Your task to perform on an android device: turn off data saver in the chrome app Image 0: 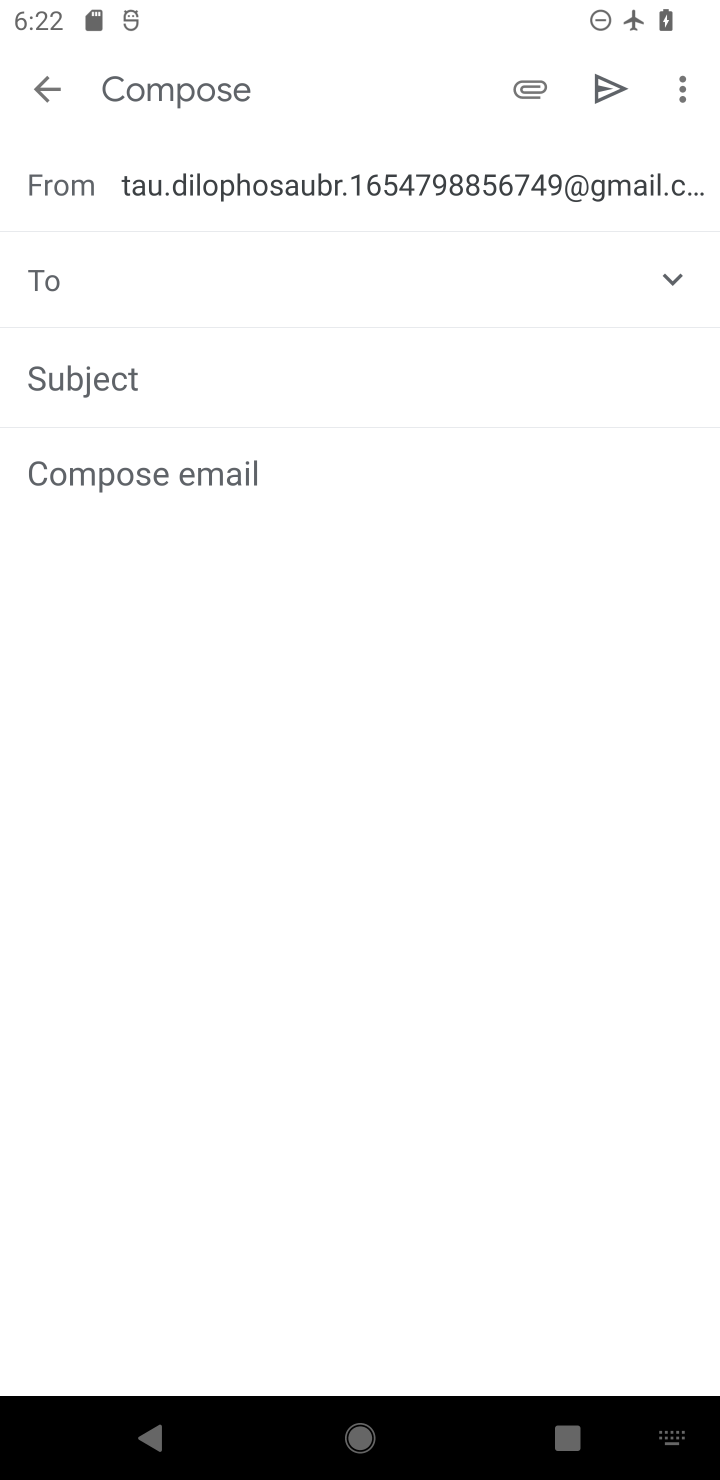
Step 0: press back button
Your task to perform on an android device: turn off data saver in the chrome app Image 1: 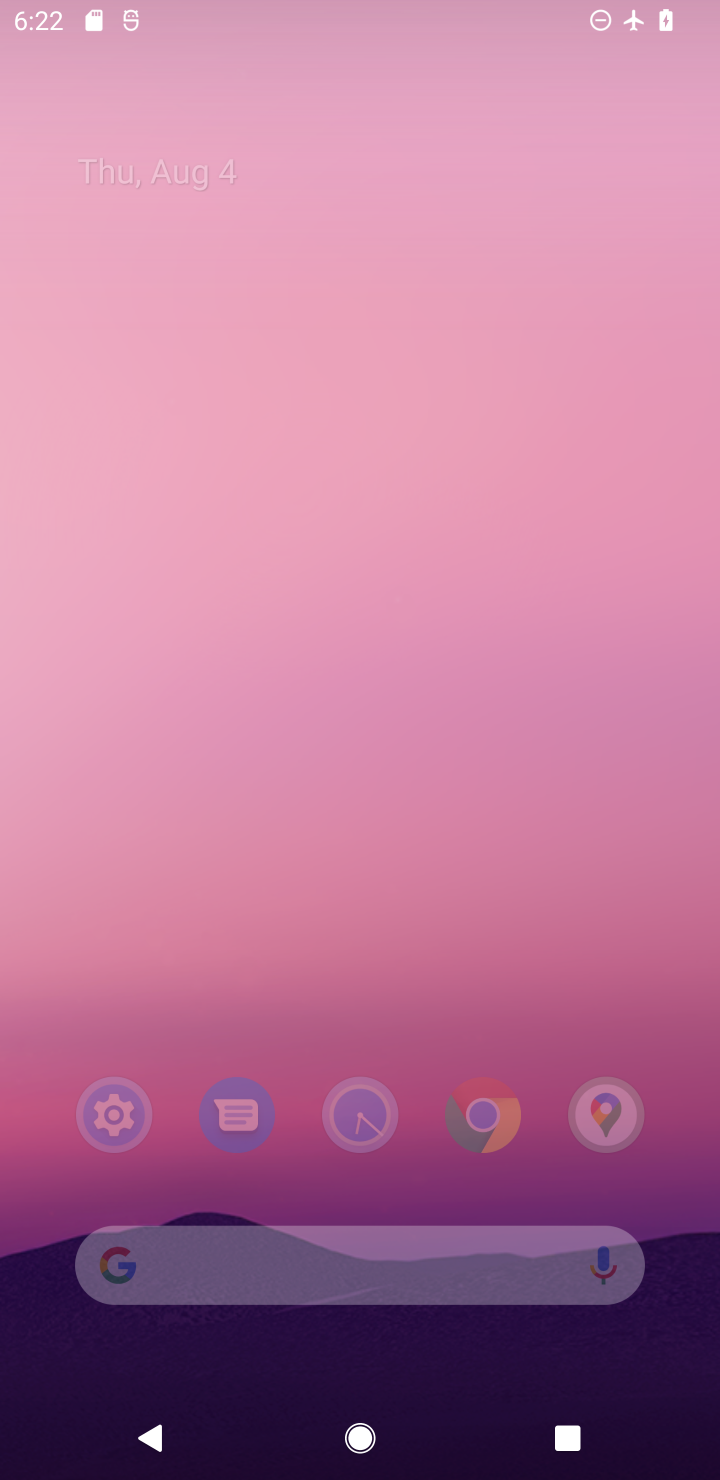
Step 1: press home button
Your task to perform on an android device: turn off data saver in the chrome app Image 2: 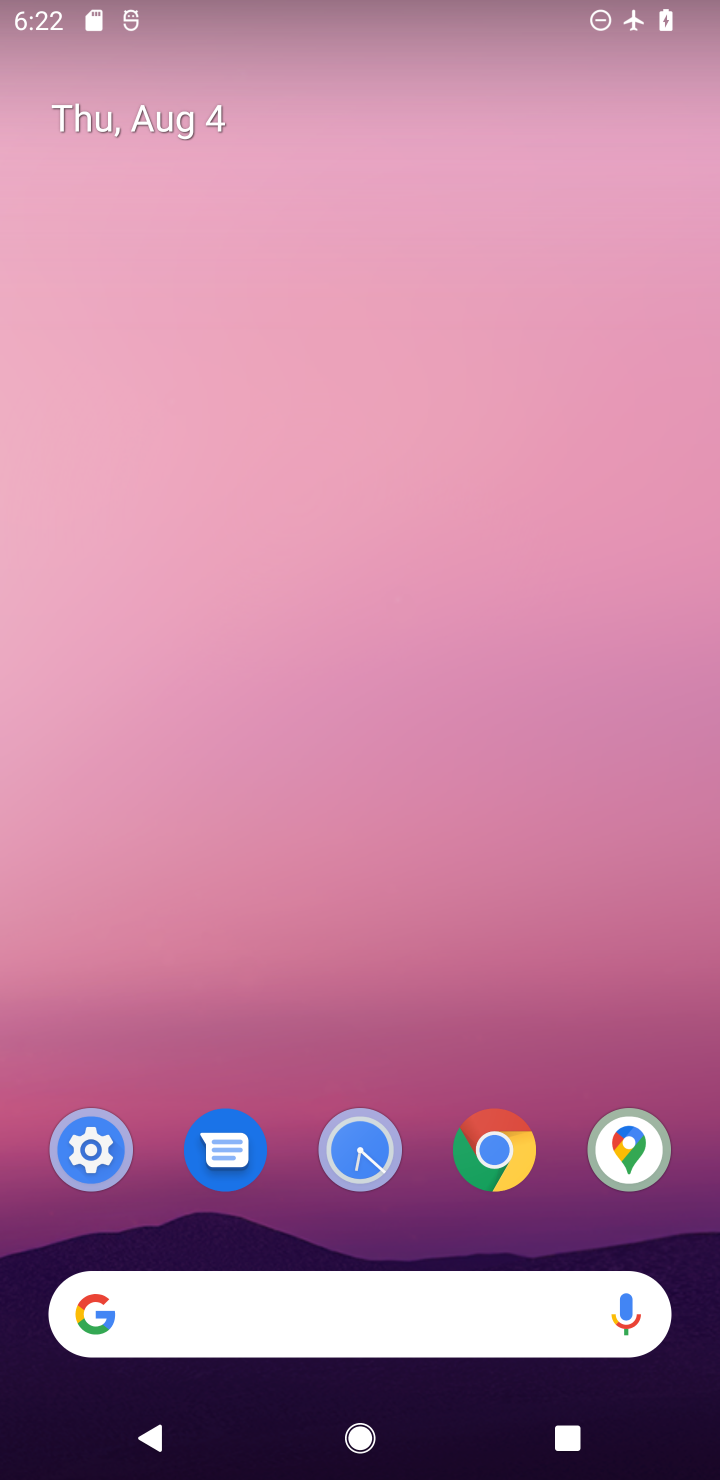
Step 2: drag from (481, 1273) to (479, 102)
Your task to perform on an android device: turn off data saver in the chrome app Image 3: 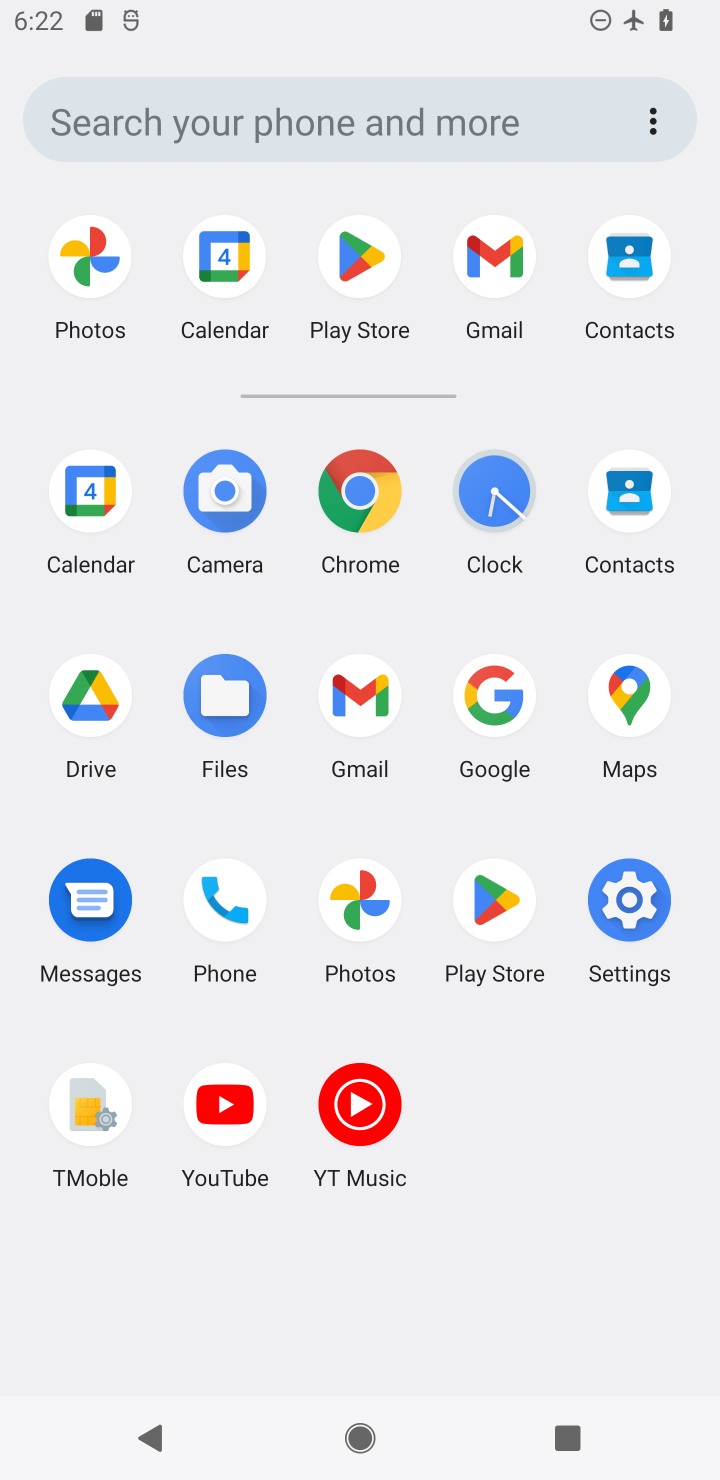
Step 3: click (385, 493)
Your task to perform on an android device: turn off data saver in the chrome app Image 4: 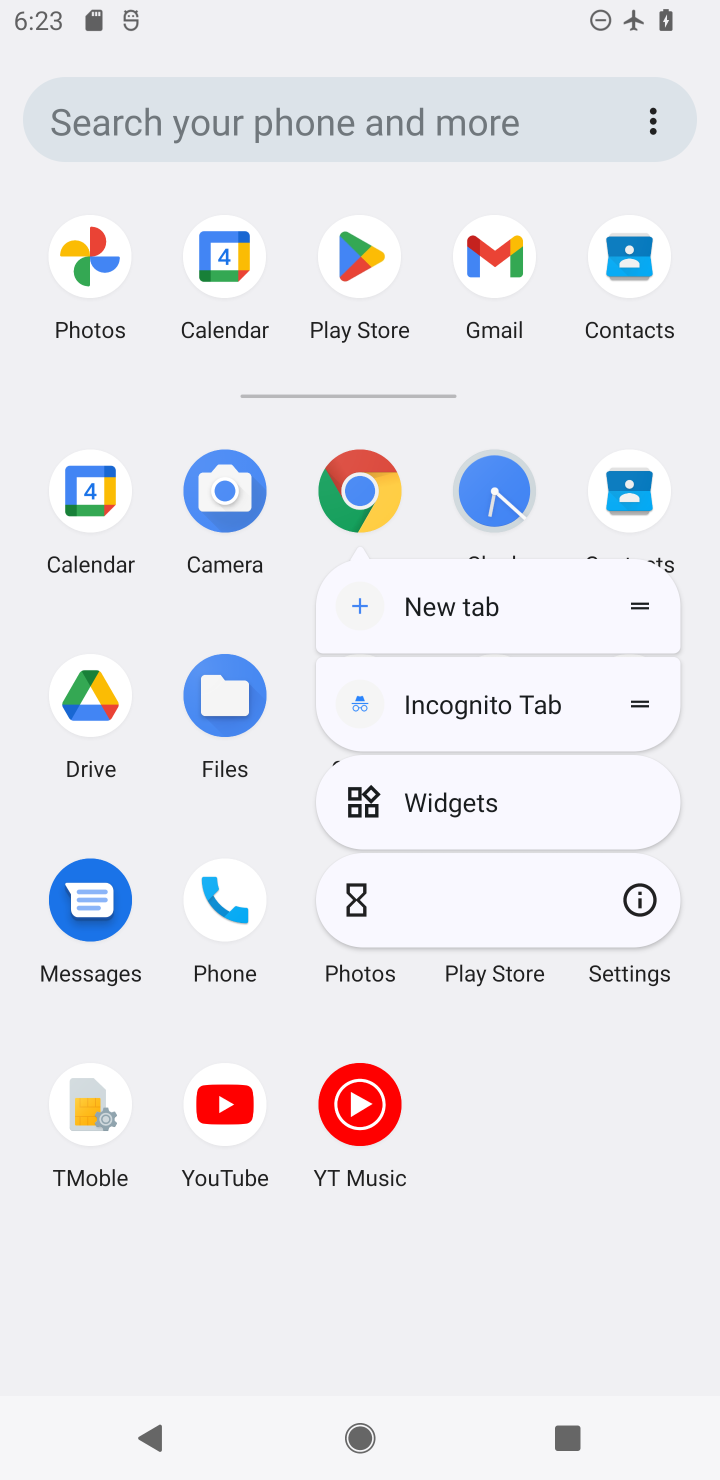
Step 4: click (333, 477)
Your task to perform on an android device: turn off data saver in the chrome app Image 5: 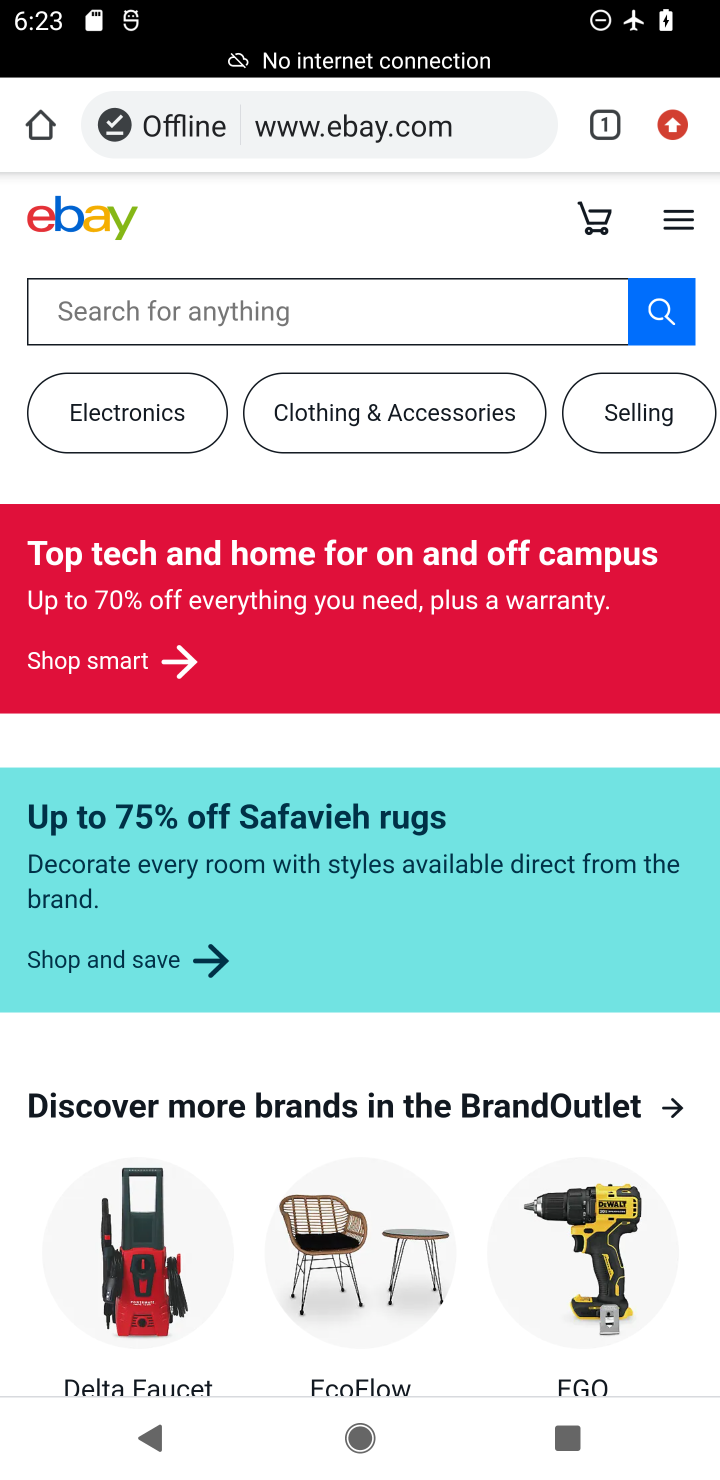
Step 5: click (662, 121)
Your task to perform on an android device: turn off data saver in the chrome app Image 6: 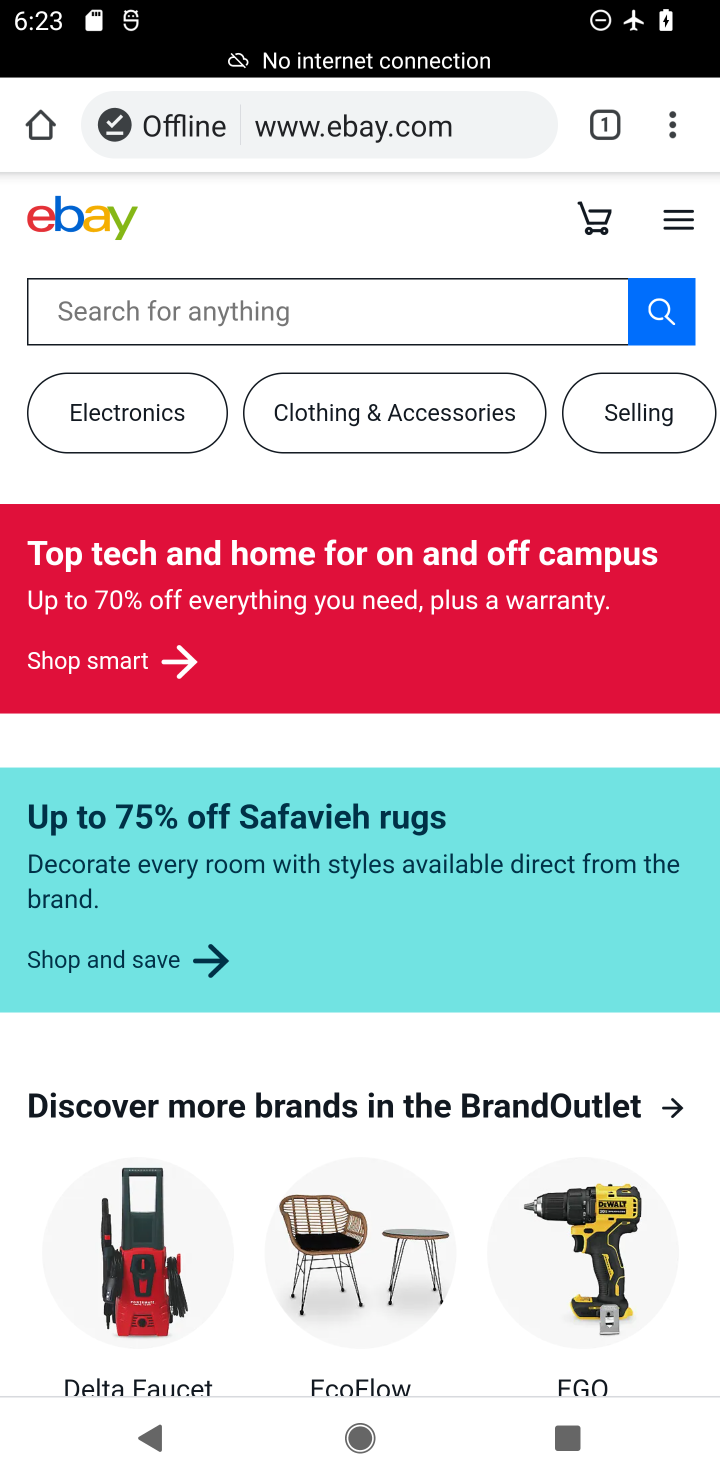
Step 6: click (672, 121)
Your task to perform on an android device: turn off data saver in the chrome app Image 7: 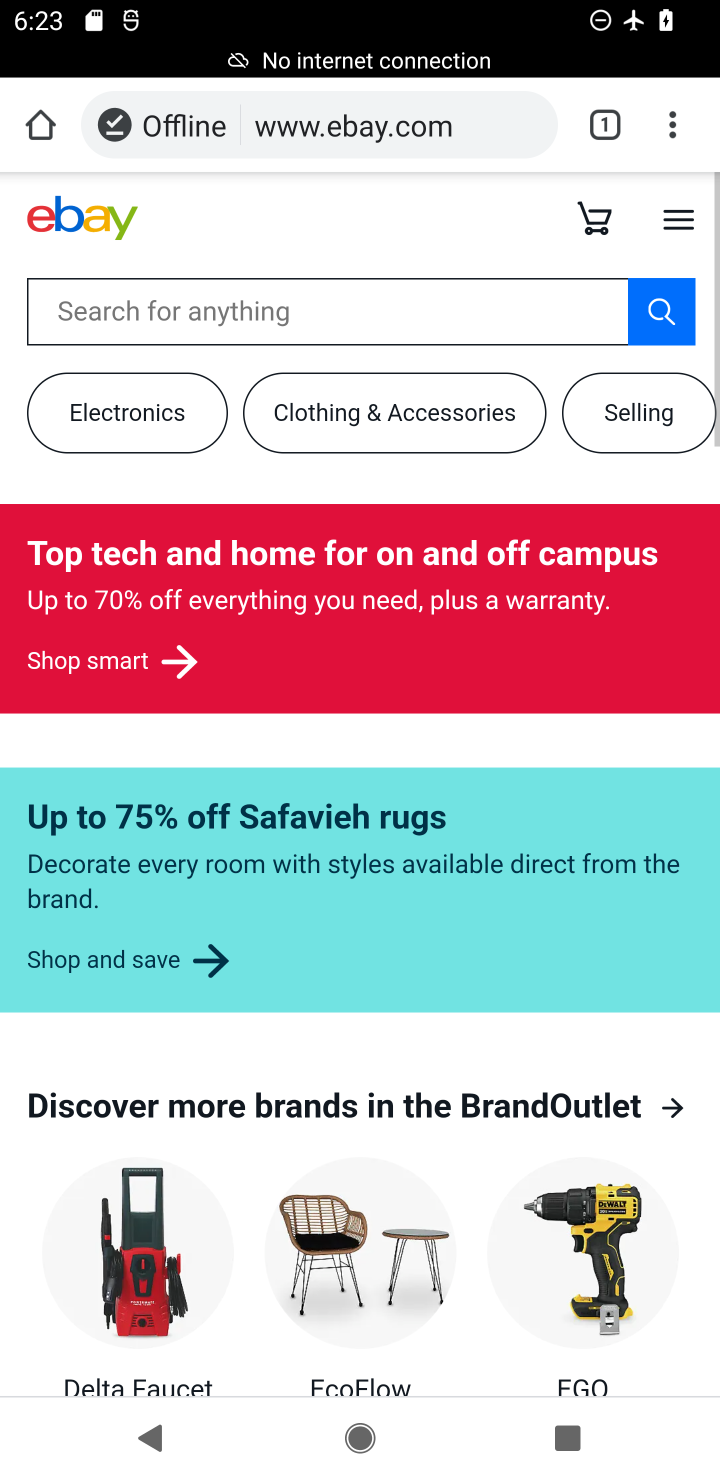
Step 7: drag from (671, 128) to (405, 1124)
Your task to perform on an android device: turn off data saver in the chrome app Image 8: 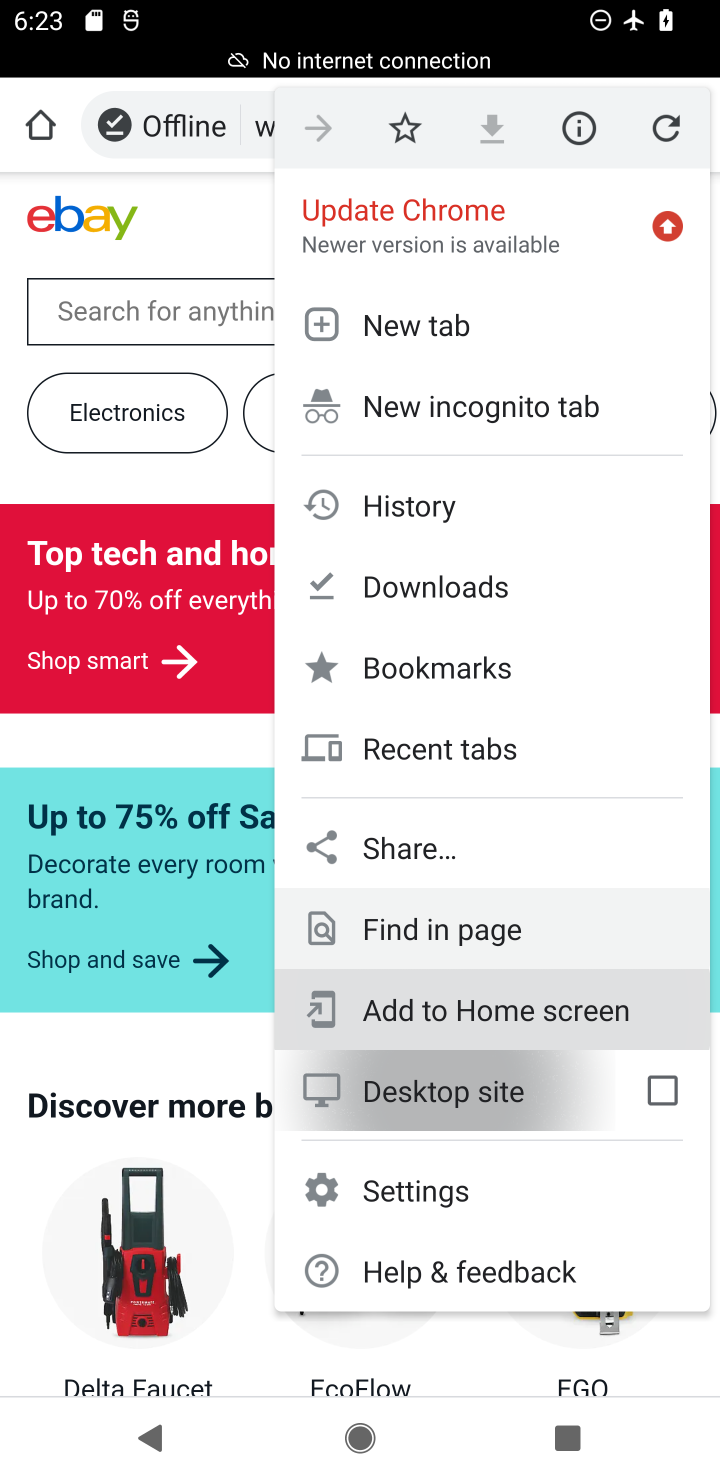
Step 8: click (384, 1191)
Your task to perform on an android device: turn off data saver in the chrome app Image 9: 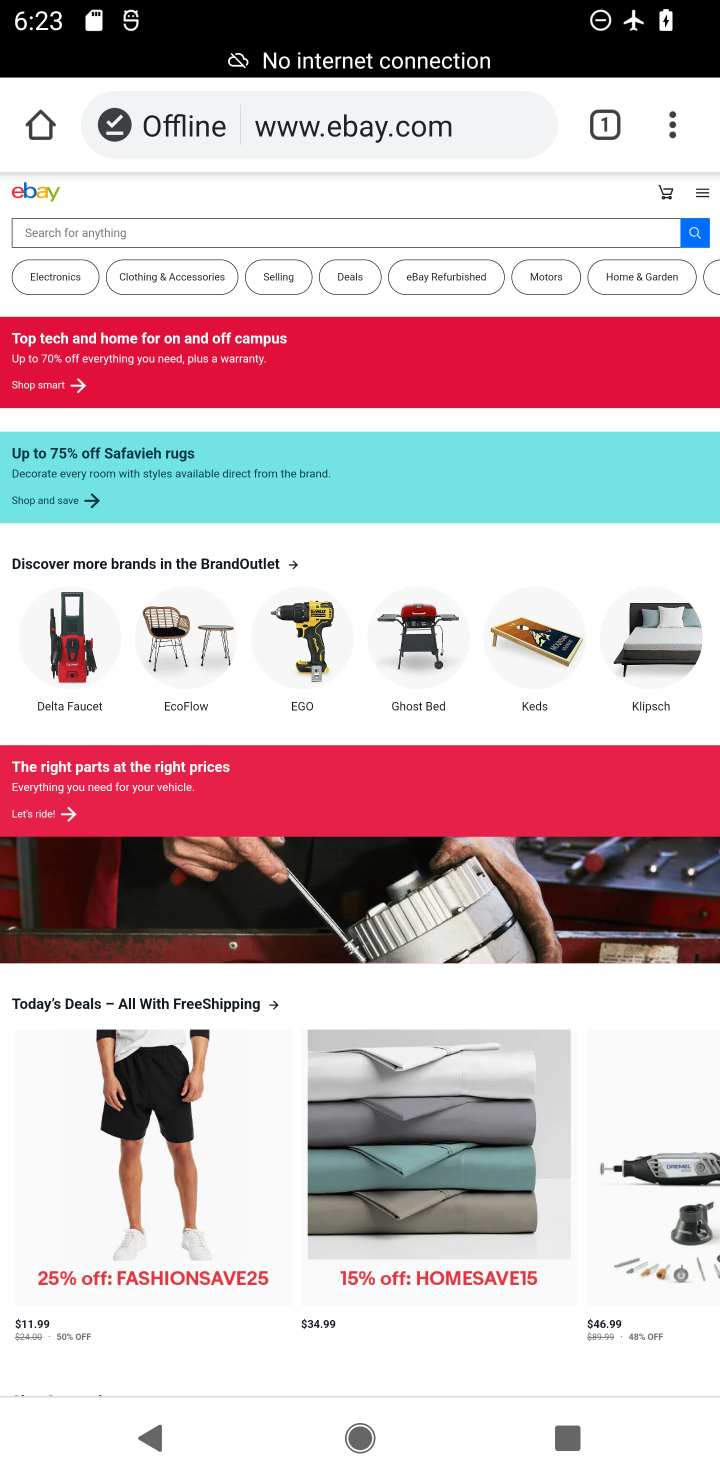
Step 9: click (664, 129)
Your task to perform on an android device: turn off data saver in the chrome app Image 10: 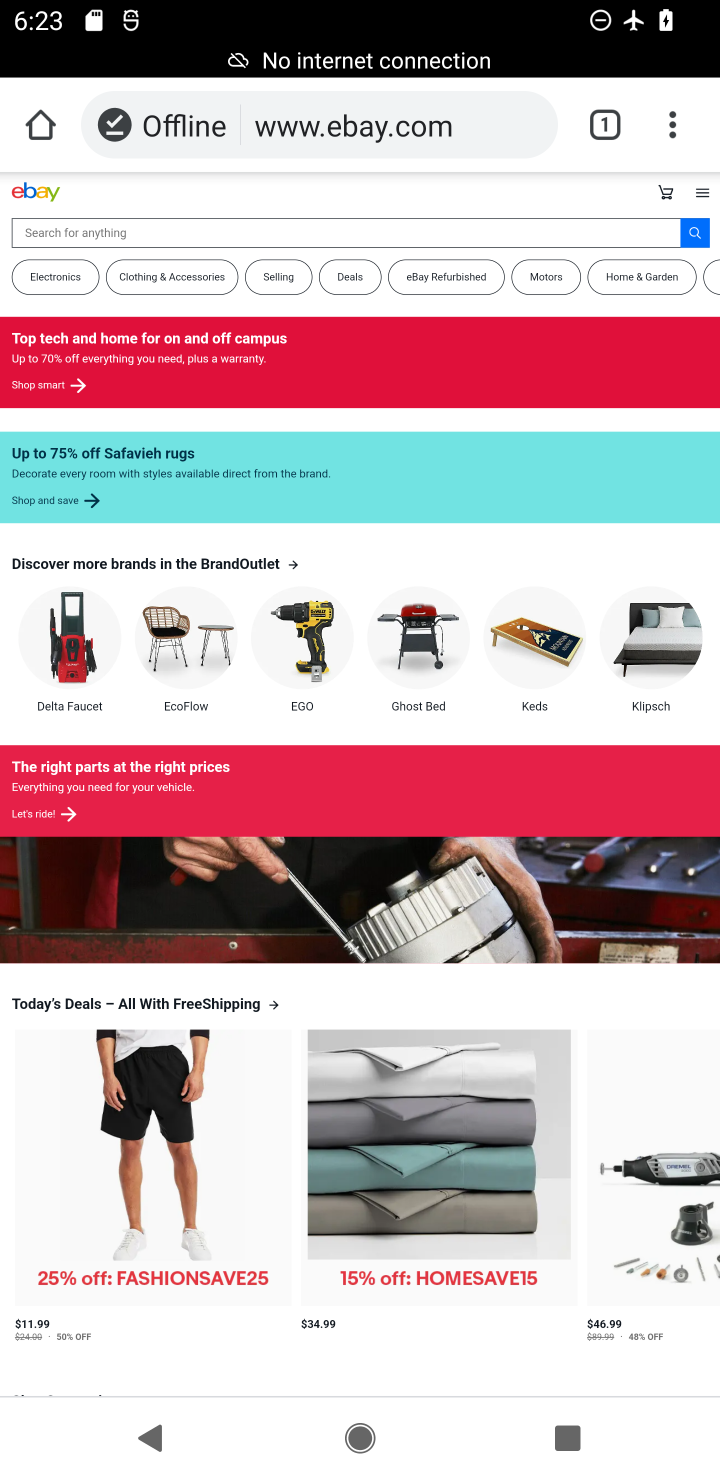
Step 10: drag from (663, 123) to (479, 1198)
Your task to perform on an android device: turn off data saver in the chrome app Image 11: 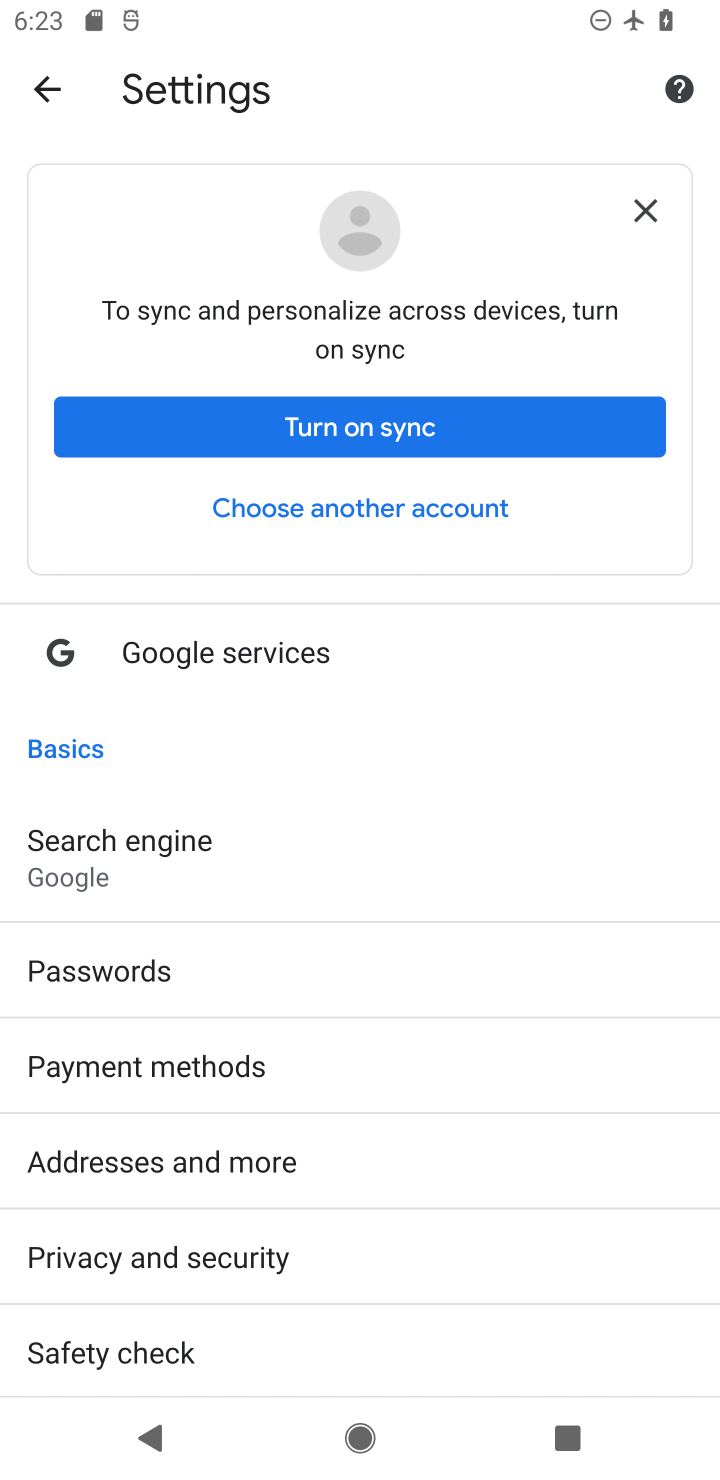
Step 11: drag from (326, 1152) to (364, 101)
Your task to perform on an android device: turn off data saver in the chrome app Image 12: 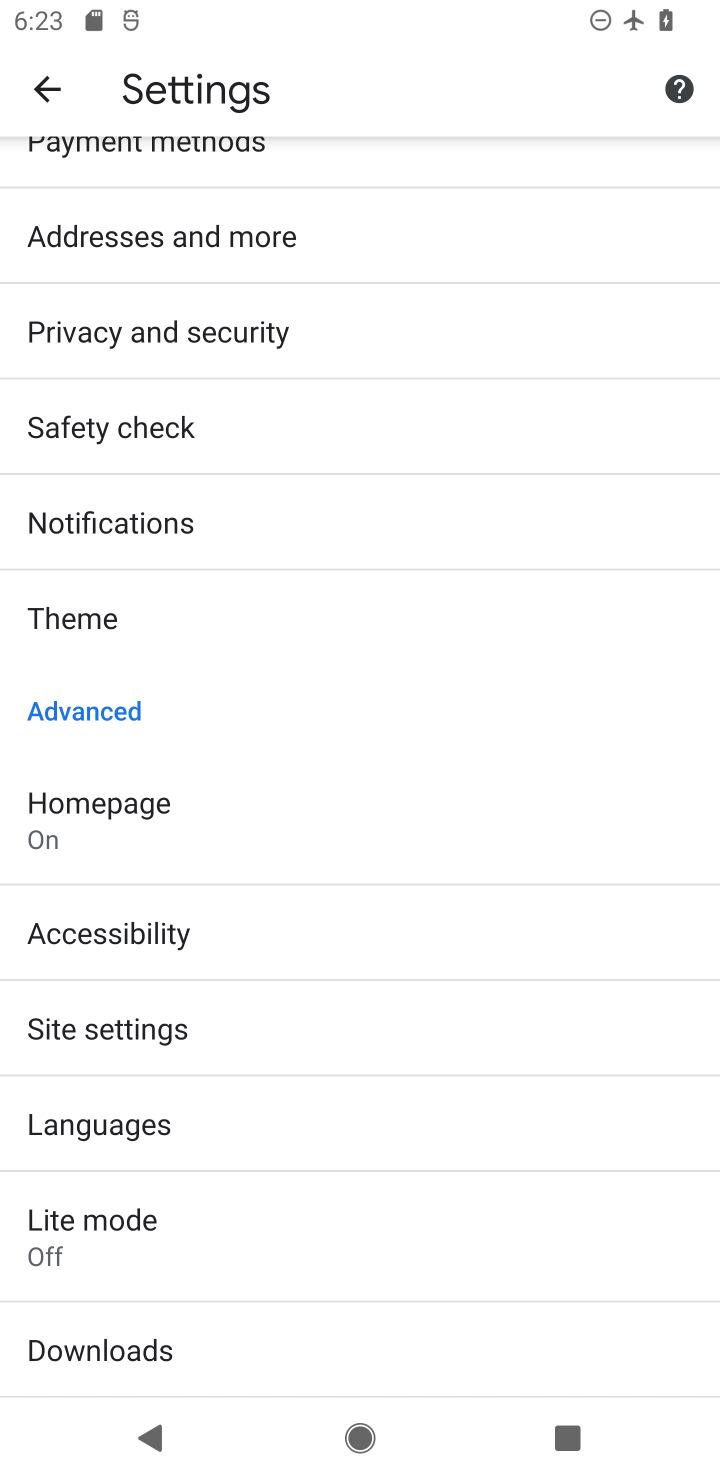
Step 12: click (120, 1204)
Your task to perform on an android device: turn off data saver in the chrome app Image 13: 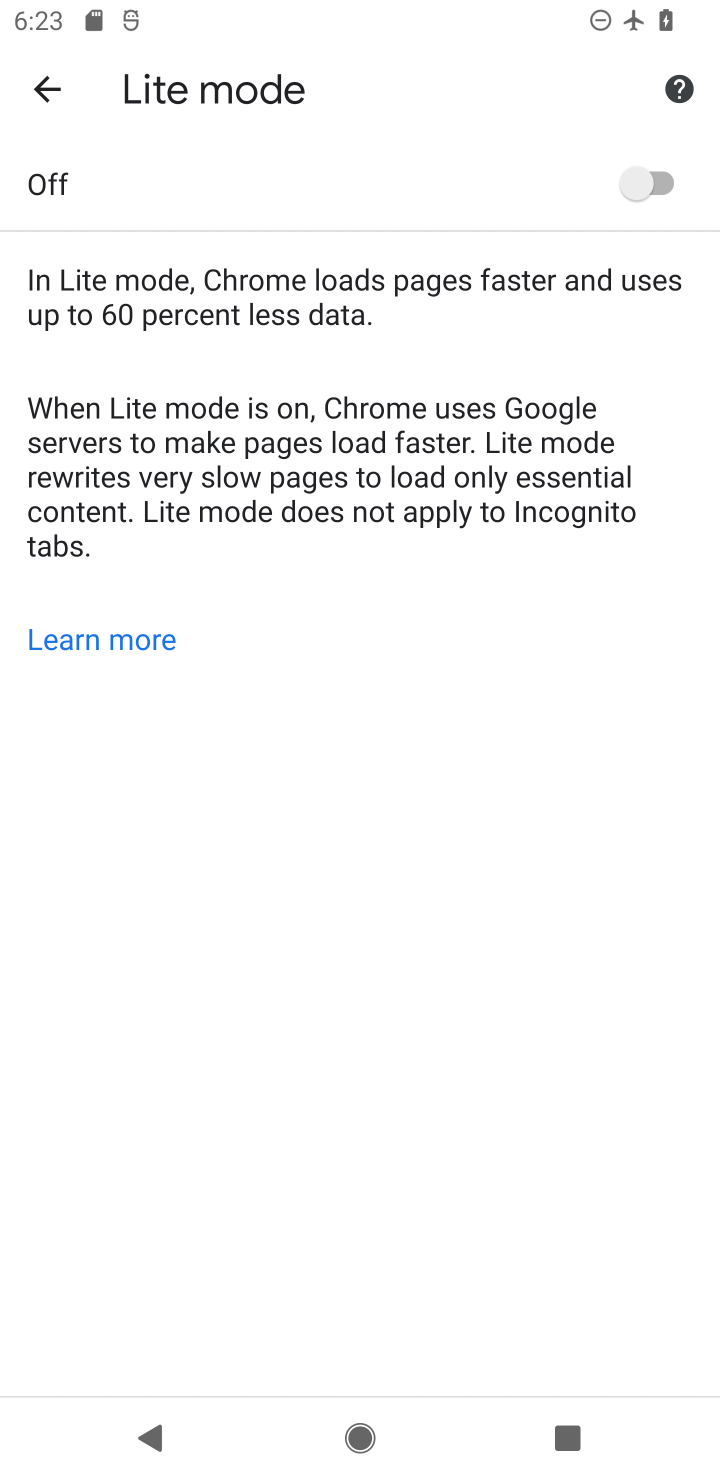
Step 13: task complete